Your task to perform on an android device: turn off improve location accuracy Image 0: 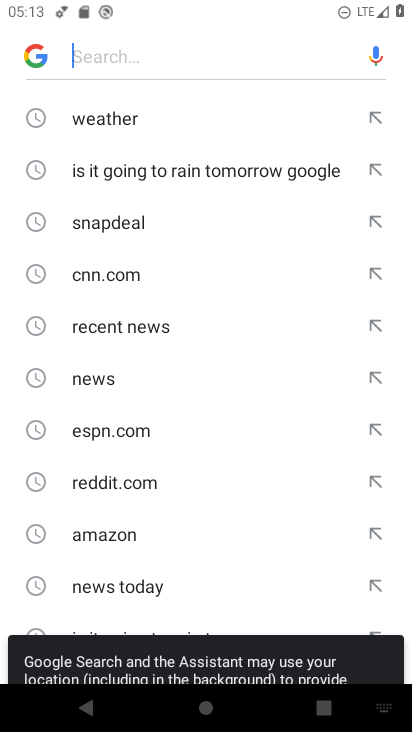
Step 0: press home button
Your task to perform on an android device: turn off improve location accuracy Image 1: 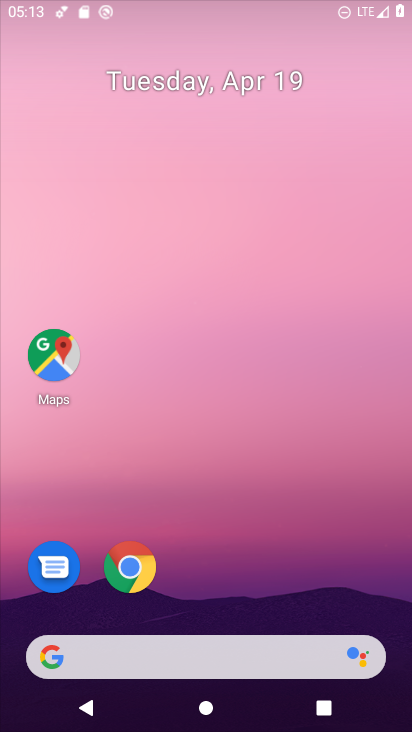
Step 1: drag from (191, 676) to (234, 1)
Your task to perform on an android device: turn off improve location accuracy Image 2: 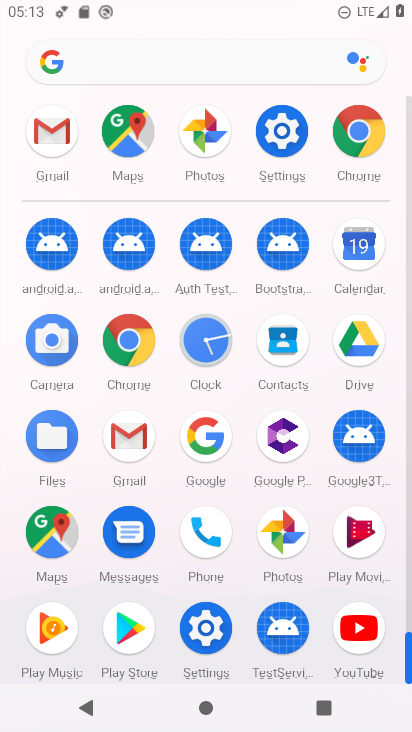
Step 2: click (198, 628)
Your task to perform on an android device: turn off improve location accuracy Image 3: 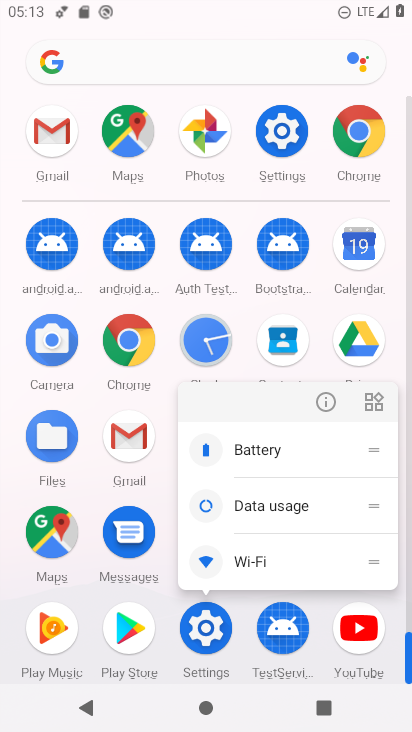
Step 3: click (206, 620)
Your task to perform on an android device: turn off improve location accuracy Image 4: 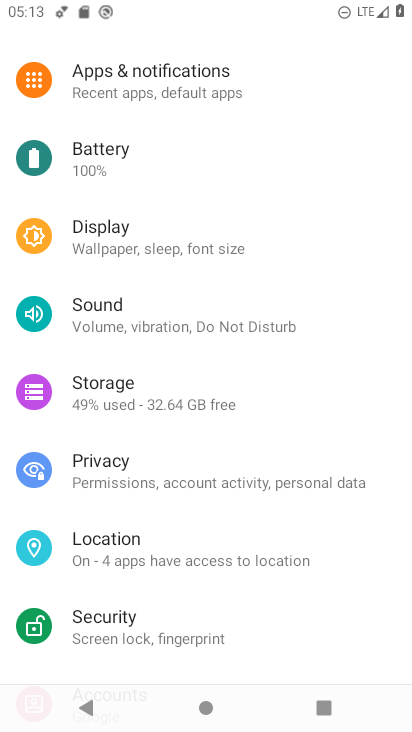
Step 4: drag from (180, 568) to (214, 177)
Your task to perform on an android device: turn off improve location accuracy Image 5: 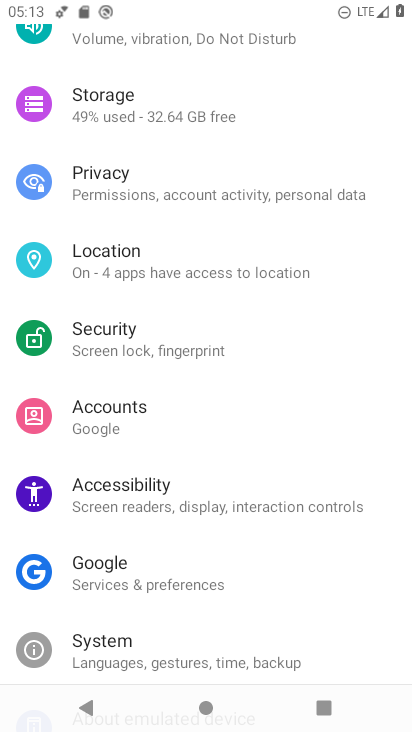
Step 5: click (172, 261)
Your task to perform on an android device: turn off improve location accuracy Image 6: 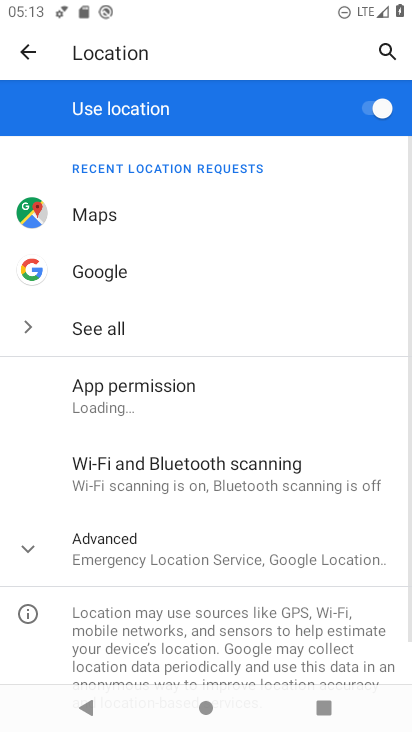
Step 6: drag from (223, 641) to (217, 189)
Your task to perform on an android device: turn off improve location accuracy Image 7: 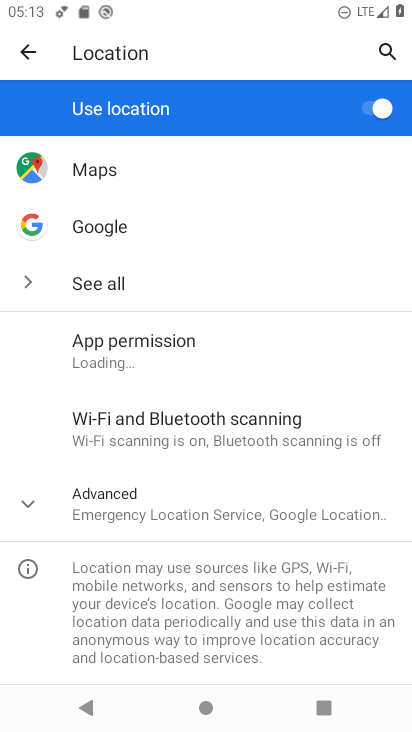
Step 7: click (173, 433)
Your task to perform on an android device: turn off improve location accuracy Image 8: 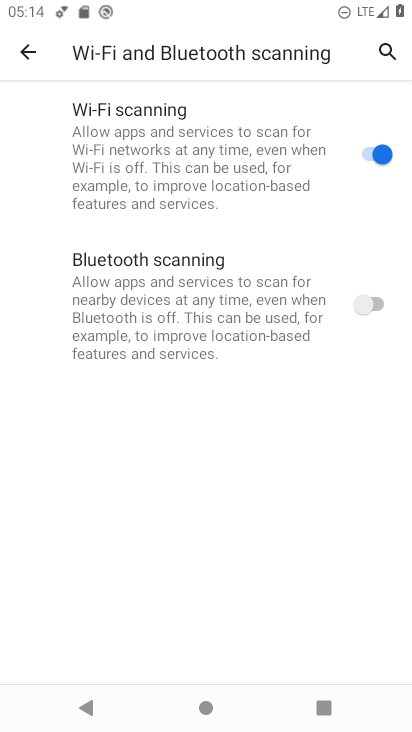
Step 8: click (29, 50)
Your task to perform on an android device: turn off improve location accuracy Image 9: 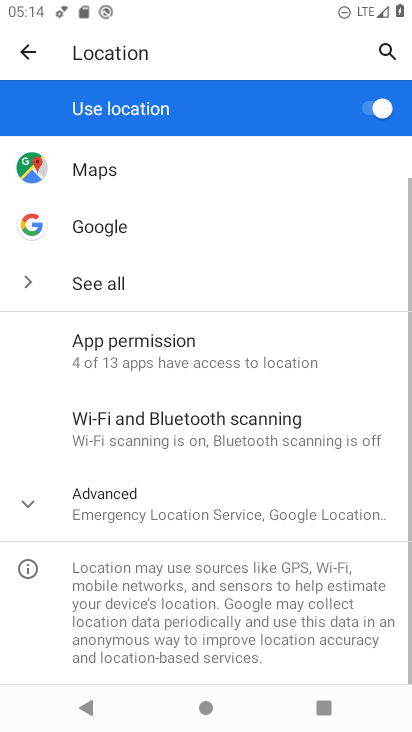
Step 9: click (213, 513)
Your task to perform on an android device: turn off improve location accuracy Image 10: 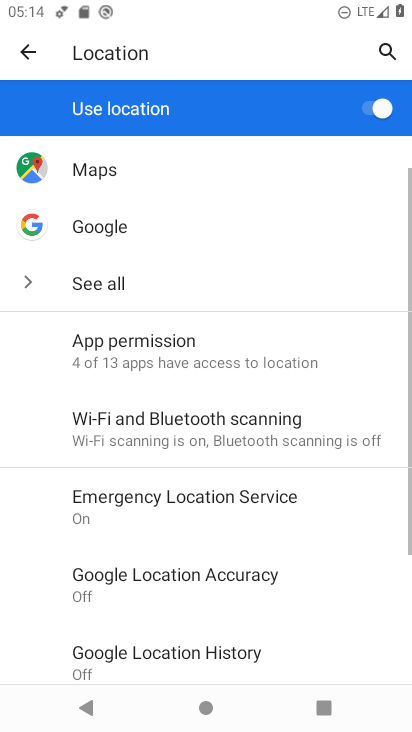
Step 10: drag from (256, 565) to (255, 326)
Your task to perform on an android device: turn off improve location accuracy Image 11: 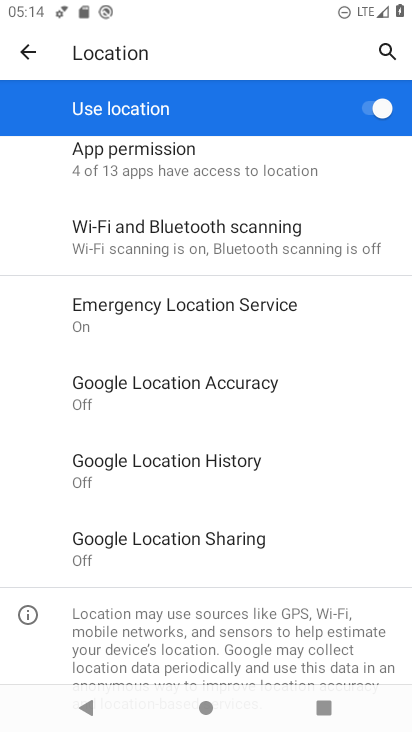
Step 11: click (220, 385)
Your task to perform on an android device: turn off improve location accuracy Image 12: 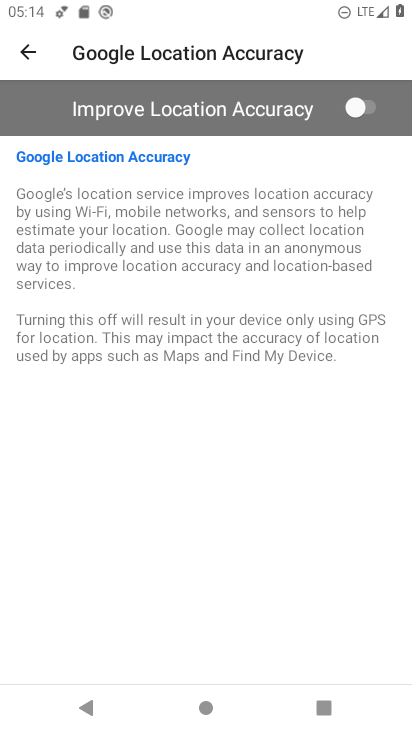
Step 12: task complete